Your task to perform on an android device: clear history in the chrome app Image 0: 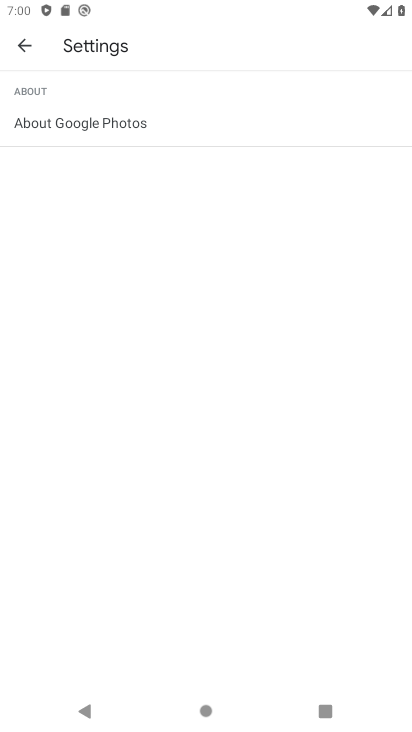
Step 0: press home button
Your task to perform on an android device: clear history in the chrome app Image 1: 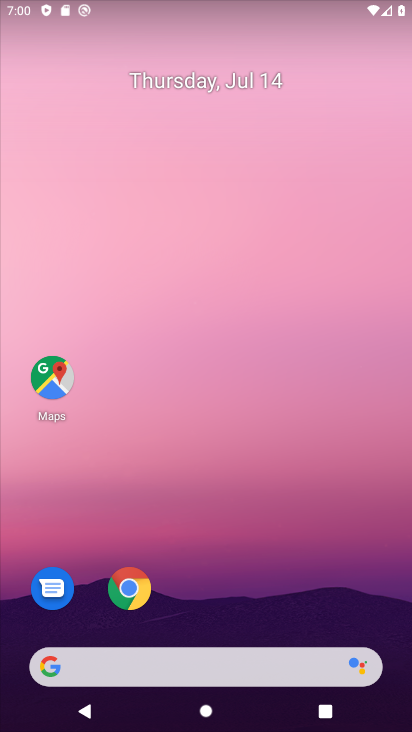
Step 1: drag from (396, 655) to (269, 11)
Your task to perform on an android device: clear history in the chrome app Image 2: 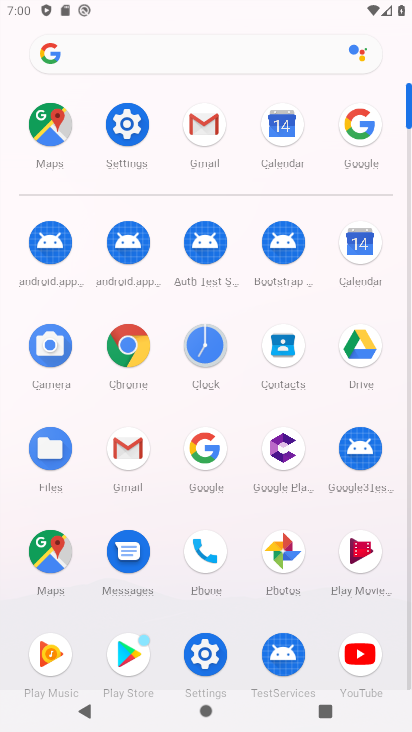
Step 2: click (117, 350)
Your task to perform on an android device: clear history in the chrome app Image 3: 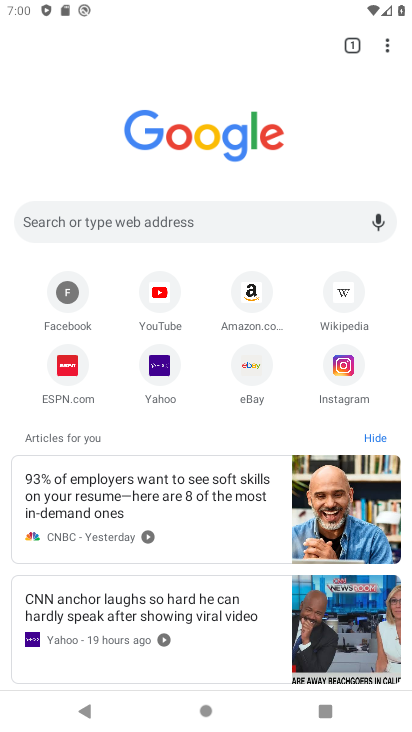
Step 3: click (385, 48)
Your task to perform on an android device: clear history in the chrome app Image 4: 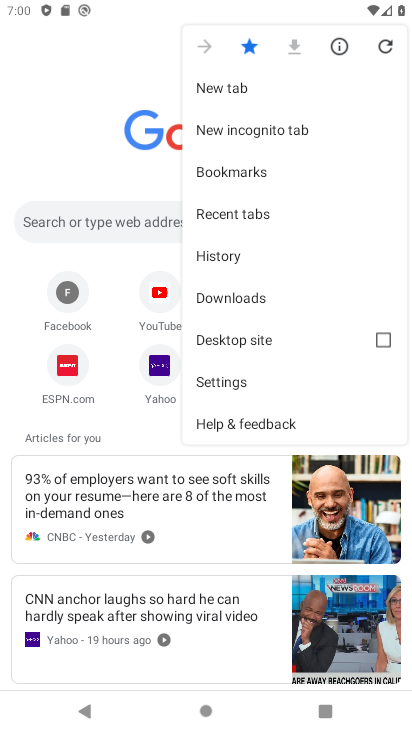
Step 4: click (237, 251)
Your task to perform on an android device: clear history in the chrome app Image 5: 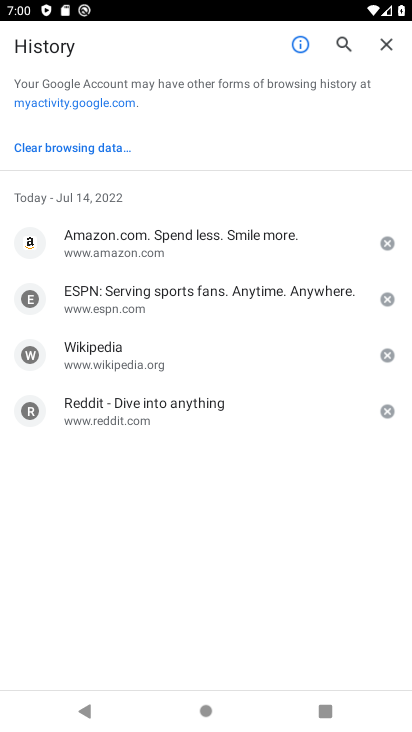
Step 5: click (60, 147)
Your task to perform on an android device: clear history in the chrome app Image 6: 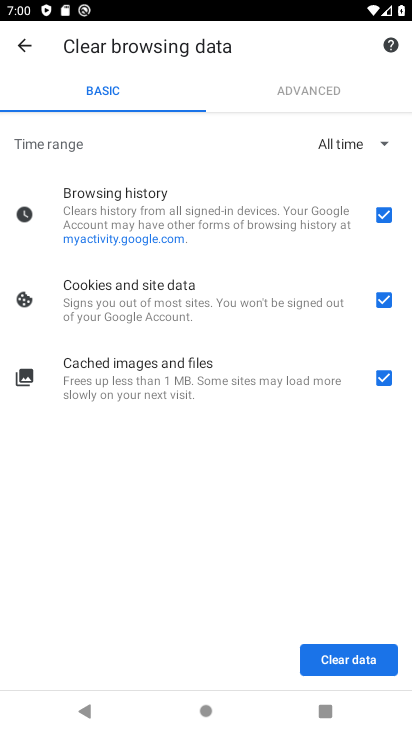
Step 6: click (317, 672)
Your task to perform on an android device: clear history in the chrome app Image 7: 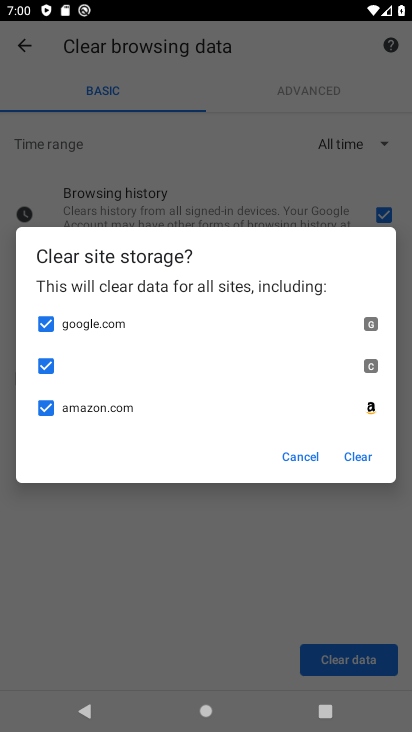
Step 7: click (353, 452)
Your task to perform on an android device: clear history in the chrome app Image 8: 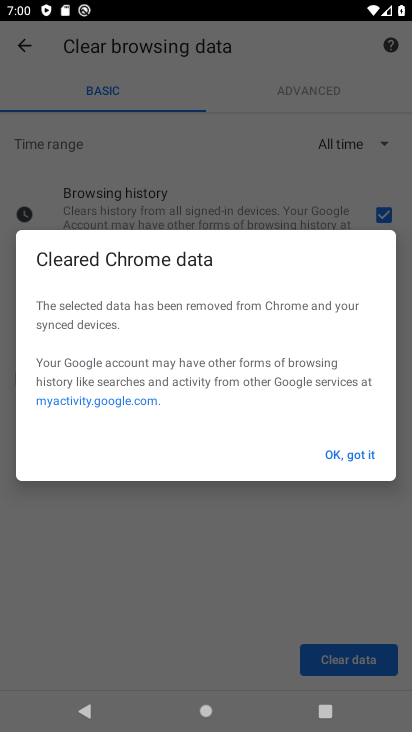
Step 8: click (353, 451)
Your task to perform on an android device: clear history in the chrome app Image 9: 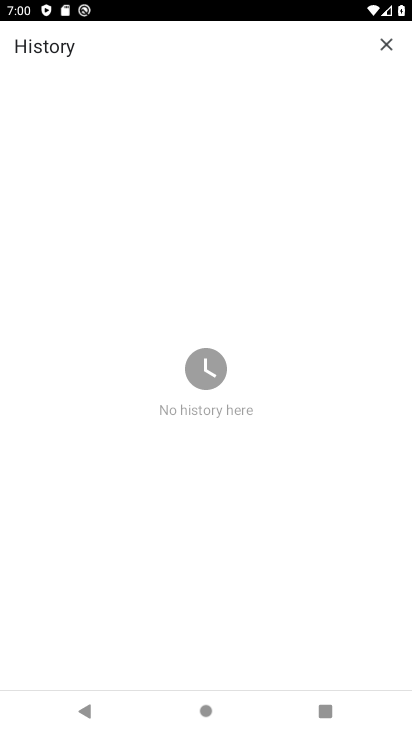
Step 9: task complete